Your task to perform on an android device: manage bookmarks in the chrome app Image 0: 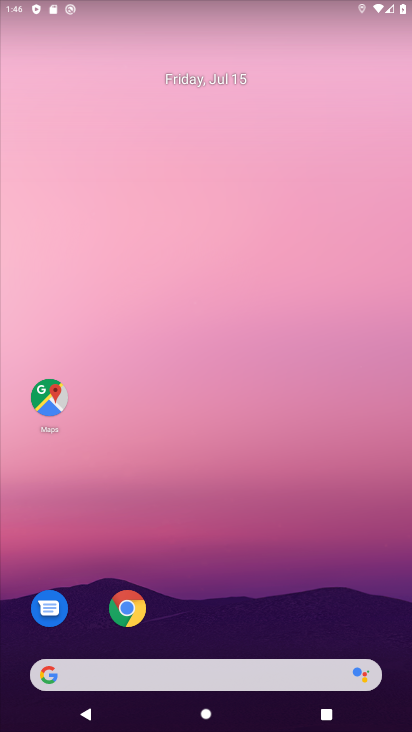
Step 0: click (128, 619)
Your task to perform on an android device: manage bookmarks in the chrome app Image 1: 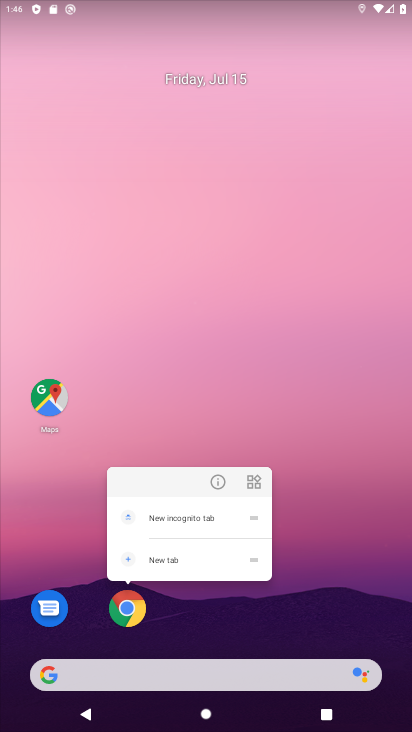
Step 1: click (128, 619)
Your task to perform on an android device: manage bookmarks in the chrome app Image 2: 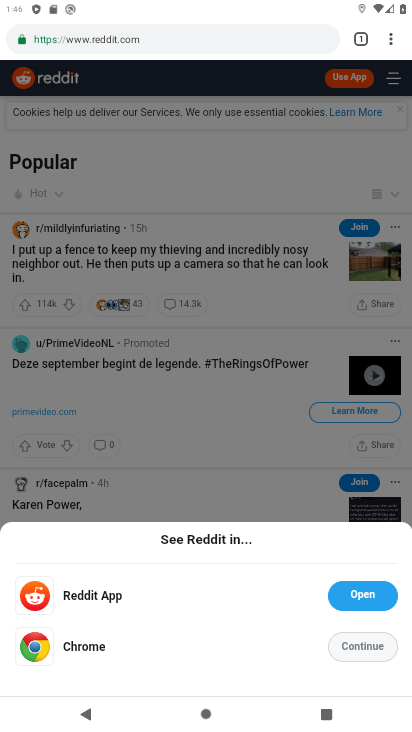
Step 2: drag from (390, 46) to (281, 150)
Your task to perform on an android device: manage bookmarks in the chrome app Image 3: 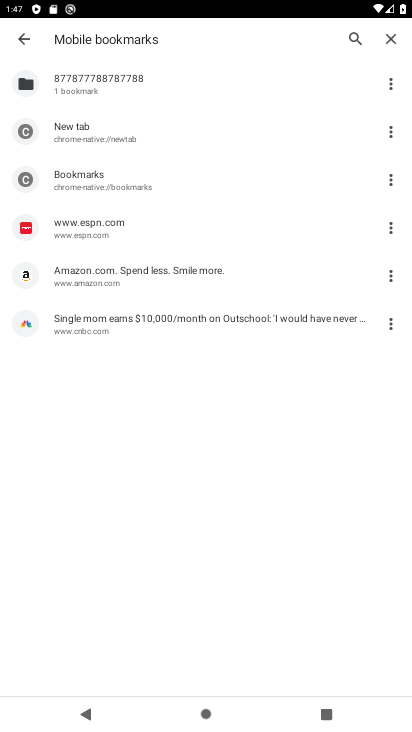
Step 3: click (397, 233)
Your task to perform on an android device: manage bookmarks in the chrome app Image 4: 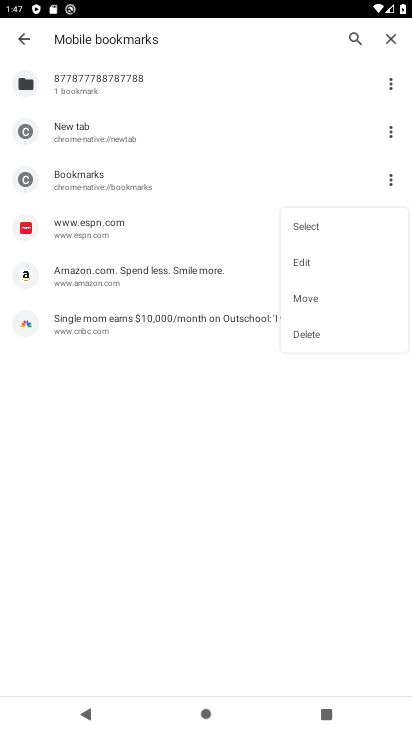
Step 4: click (311, 334)
Your task to perform on an android device: manage bookmarks in the chrome app Image 5: 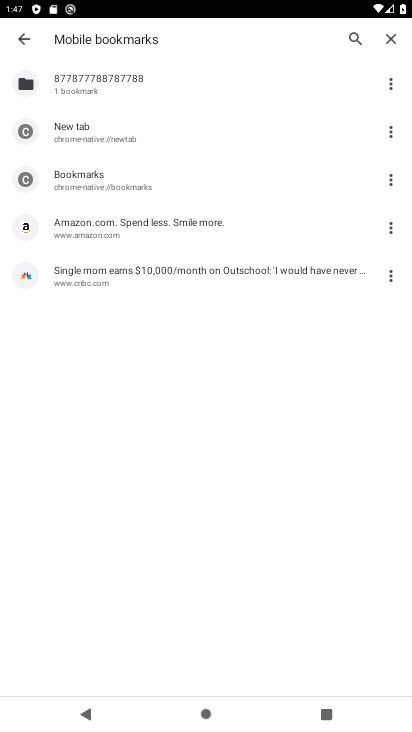
Step 5: task complete